Your task to perform on an android device: choose inbox layout in the gmail app Image 0: 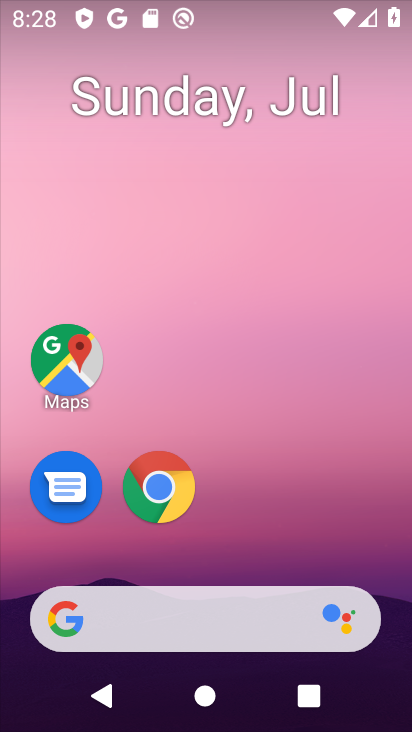
Step 0: drag from (252, 562) to (315, 0)
Your task to perform on an android device: choose inbox layout in the gmail app Image 1: 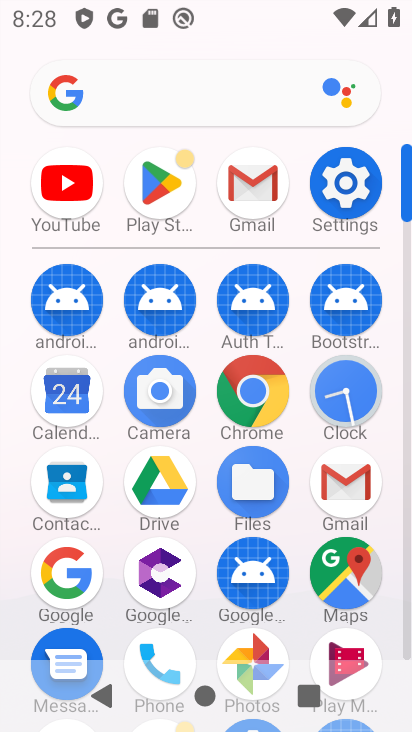
Step 1: click (257, 189)
Your task to perform on an android device: choose inbox layout in the gmail app Image 2: 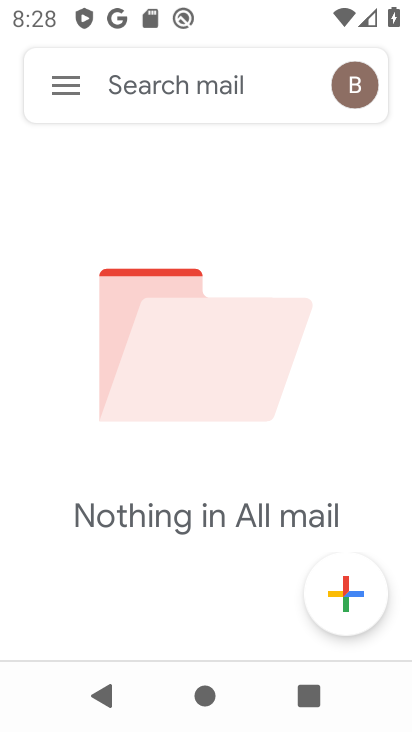
Step 2: click (57, 83)
Your task to perform on an android device: choose inbox layout in the gmail app Image 3: 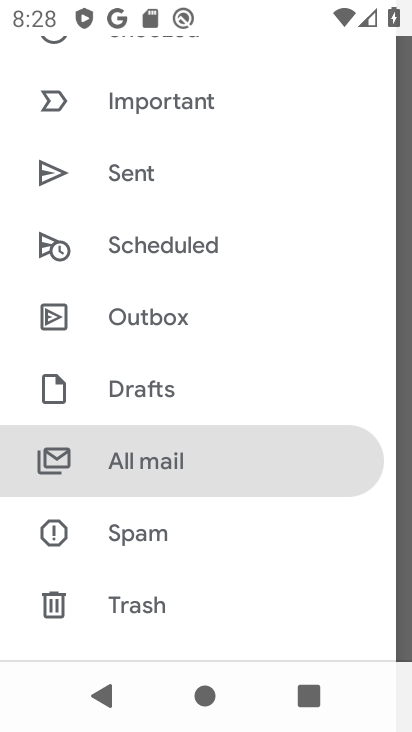
Step 3: drag from (122, 586) to (304, 25)
Your task to perform on an android device: choose inbox layout in the gmail app Image 4: 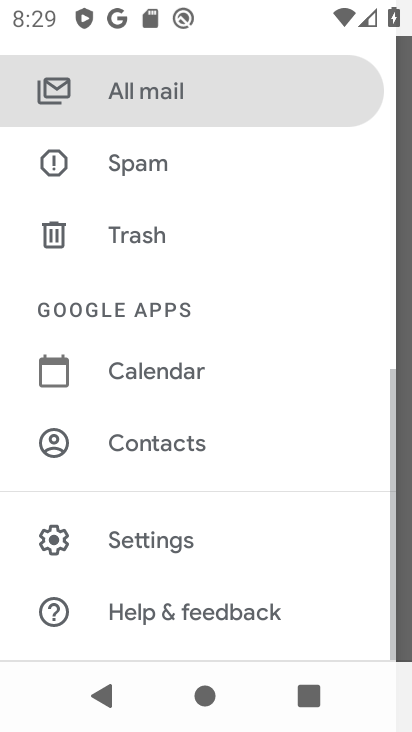
Step 4: click (159, 534)
Your task to perform on an android device: choose inbox layout in the gmail app Image 5: 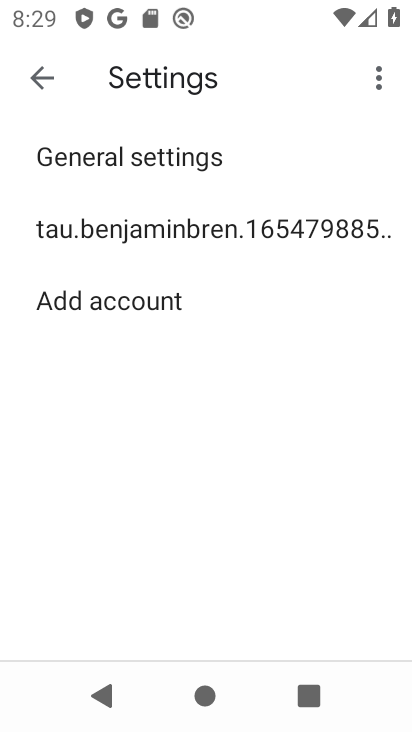
Step 5: click (117, 225)
Your task to perform on an android device: choose inbox layout in the gmail app Image 6: 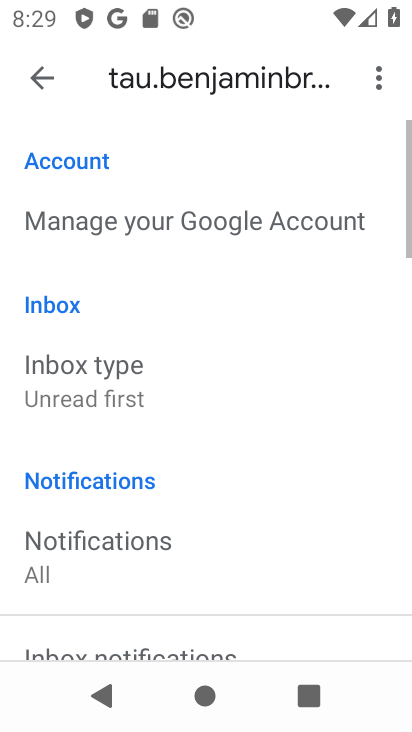
Step 6: click (70, 387)
Your task to perform on an android device: choose inbox layout in the gmail app Image 7: 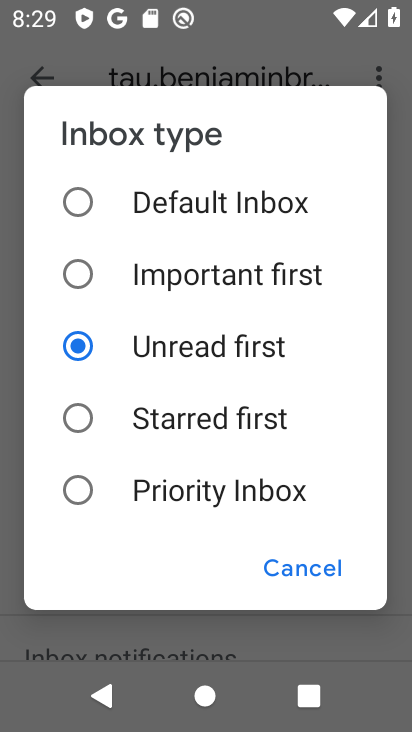
Step 7: click (75, 481)
Your task to perform on an android device: choose inbox layout in the gmail app Image 8: 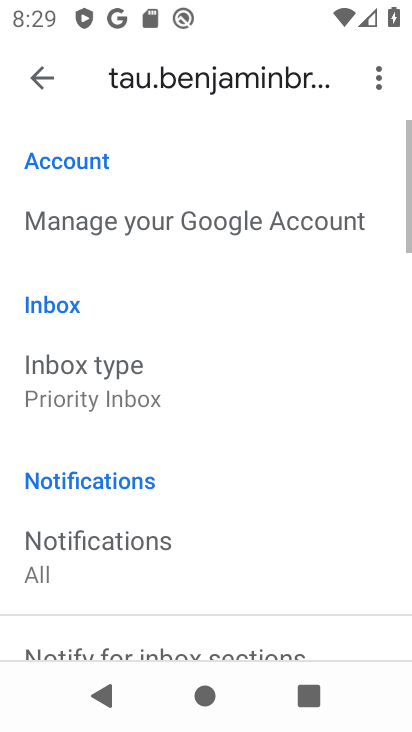
Step 8: task complete